Your task to perform on an android device: Go to network settings Image 0: 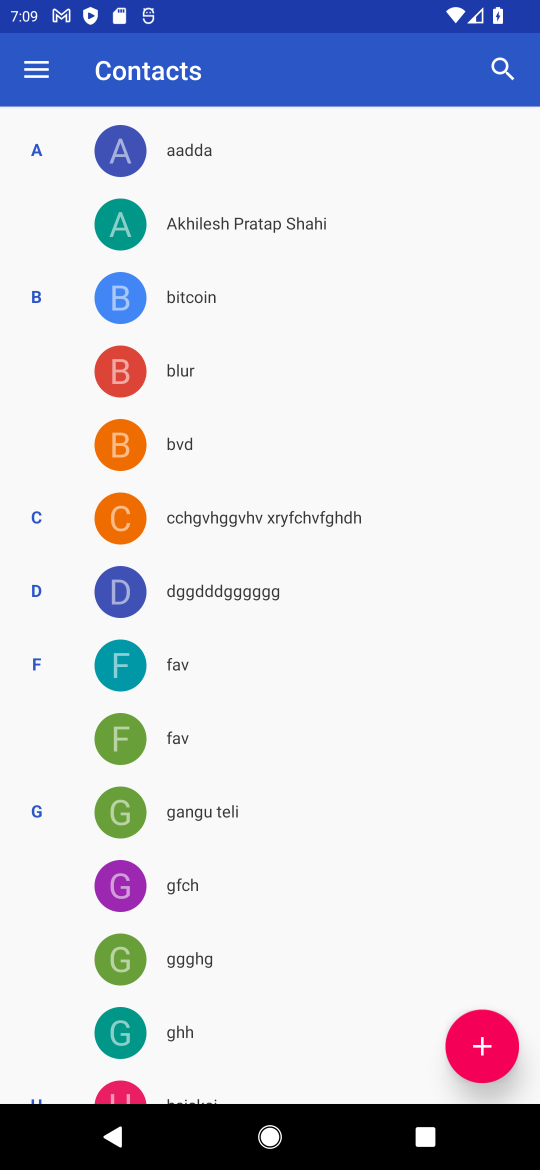
Step 0: press home button
Your task to perform on an android device: Go to network settings Image 1: 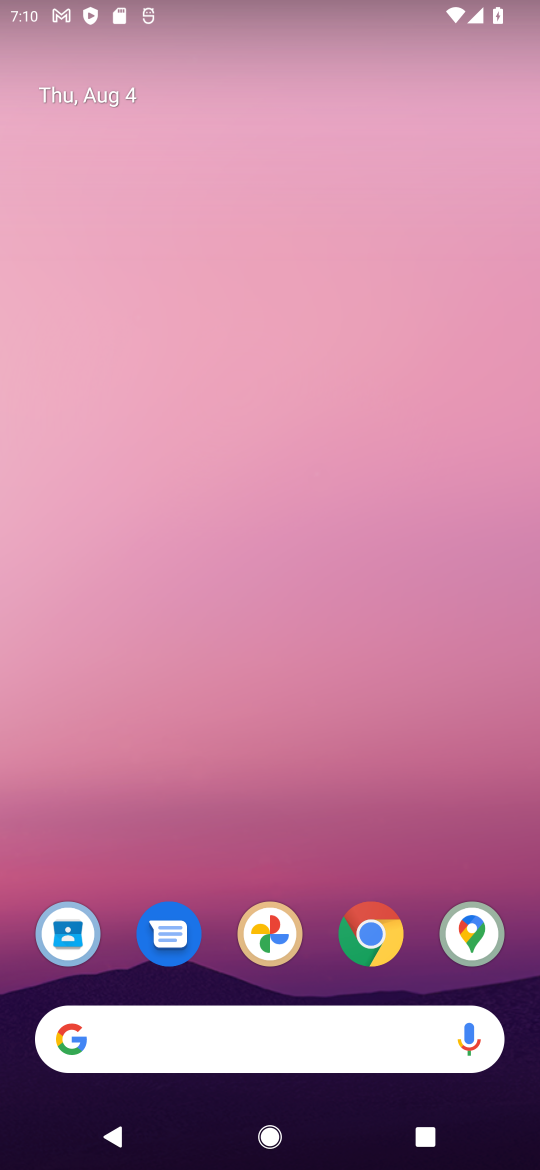
Step 1: drag from (277, 939) to (184, 295)
Your task to perform on an android device: Go to network settings Image 2: 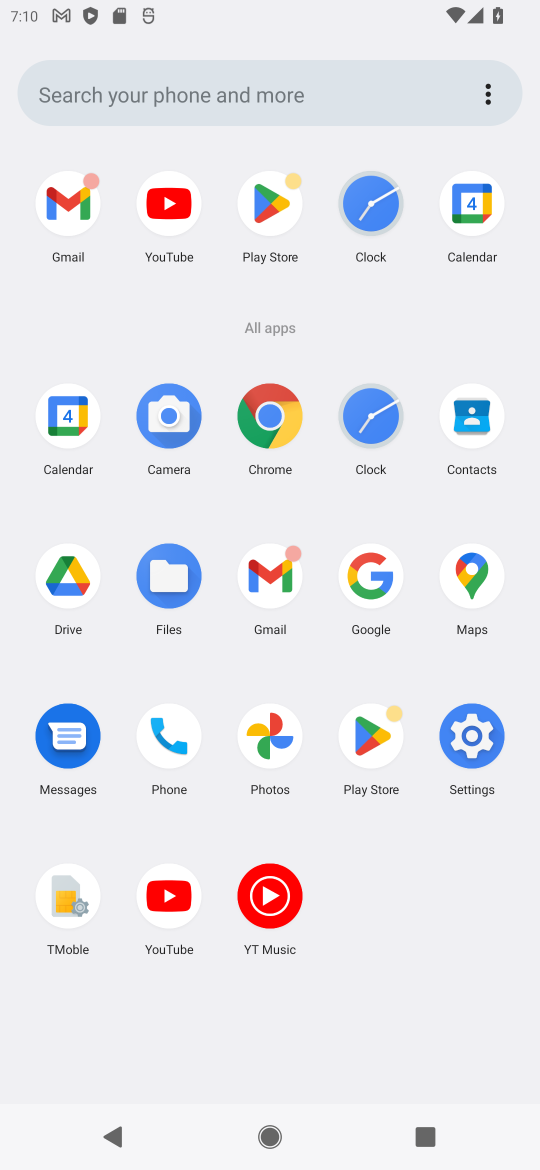
Step 2: click (473, 726)
Your task to perform on an android device: Go to network settings Image 3: 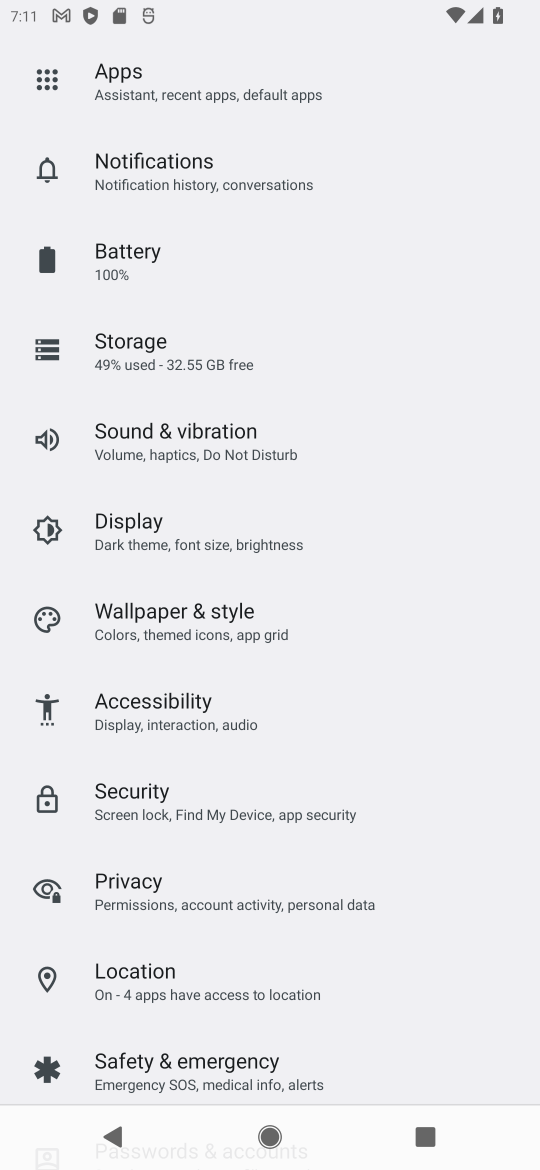
Step 3: drag from (182, 196) to (271, 1047)
Your task to perform on an android device: Go to network settings Image 4: 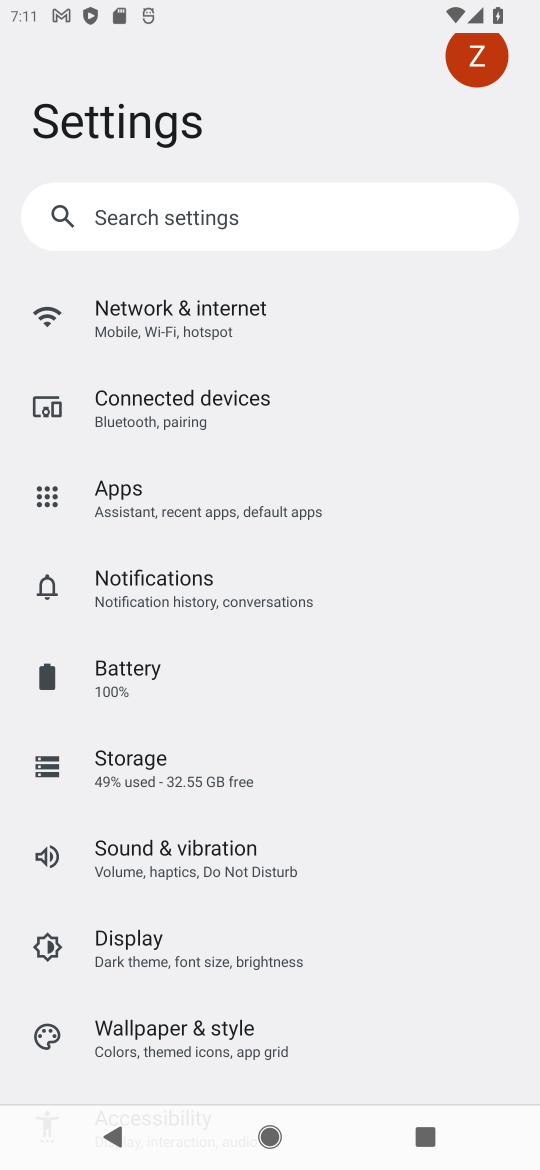
Step 4: click (213, 306)
Your task to perform on an android device: Go to network settings Image 5: 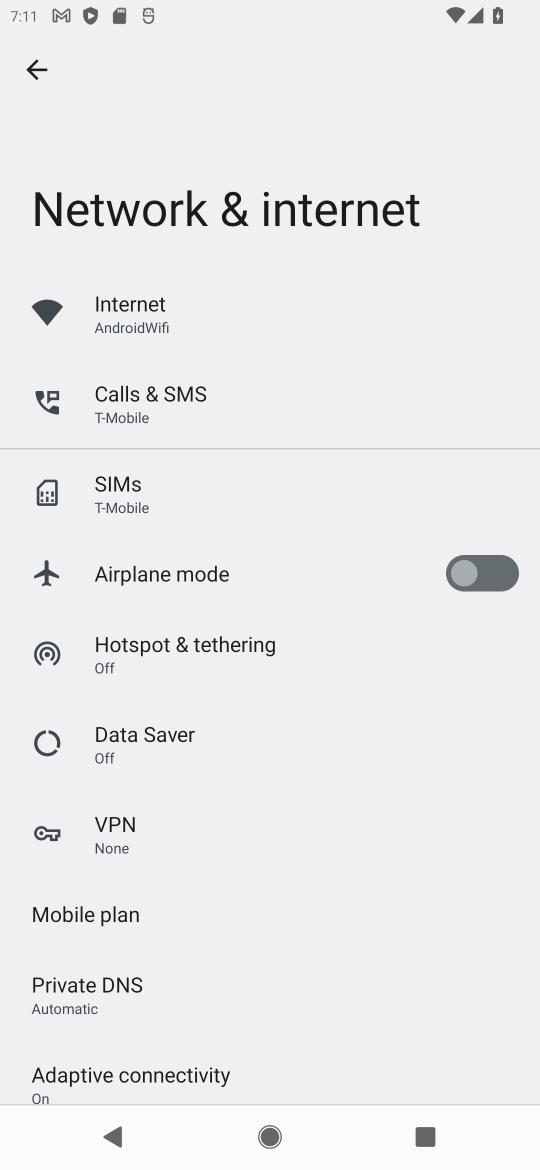
Step 5: task complete